Your task to perform on an android device: clear history in the chrome app Image 0: 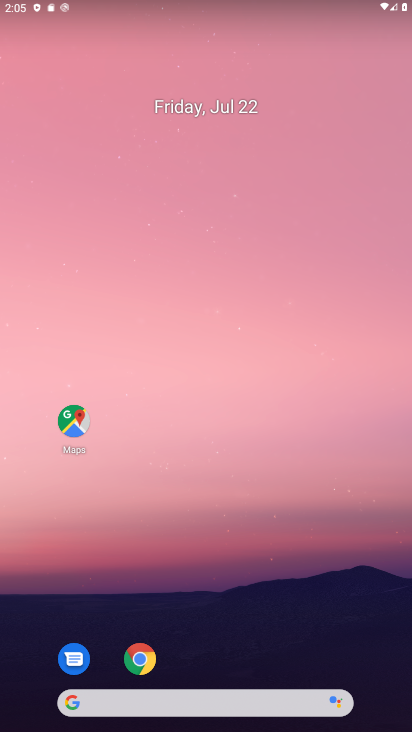
Step 0: click (133, 667)
Your task to perform on an android device: clear history in the chrome app Image 1: 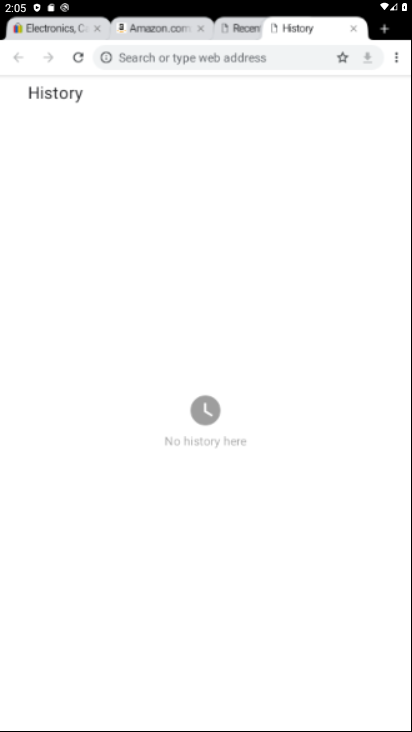
Step 1: task complete